Your task to perform on an android device: change text size in settings app Image 0: 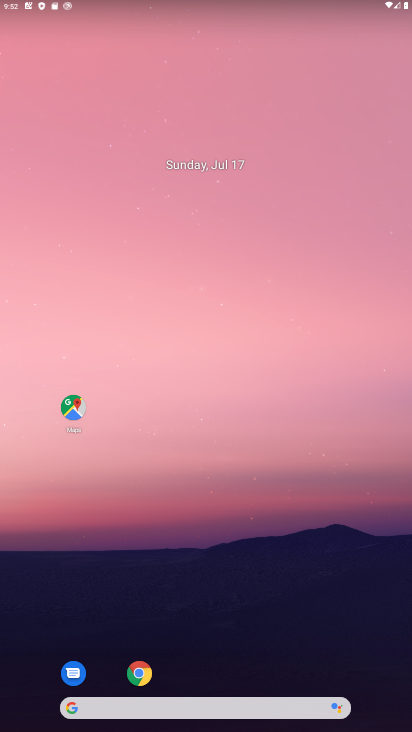
Step 0: drag from (220, 655) to (217, 136)
Your task to perform on an android device: change text size in settings app Image 1: 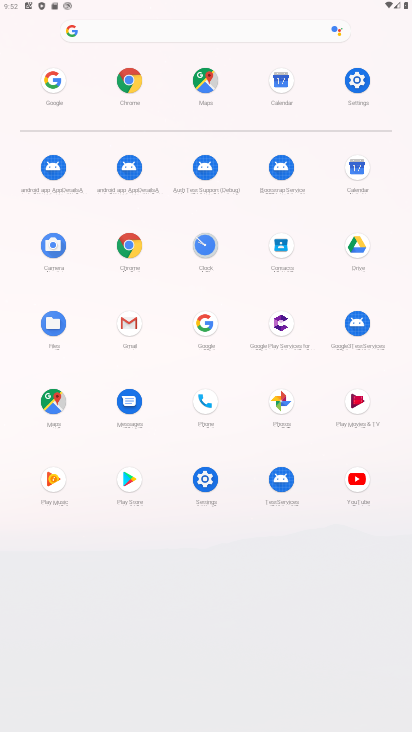
Step 1: click (357, 79)
Your task to perform on an android device: change text size in settings app Image 2: 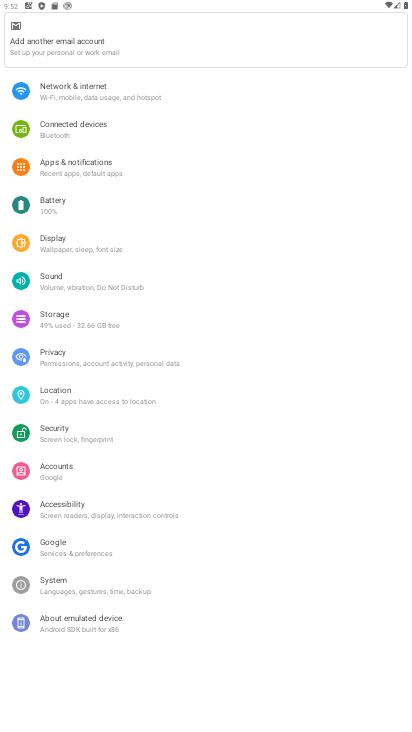
Step 2: click (116, 245)
Your task to perform on an android device: change text size in settings app Image 3: 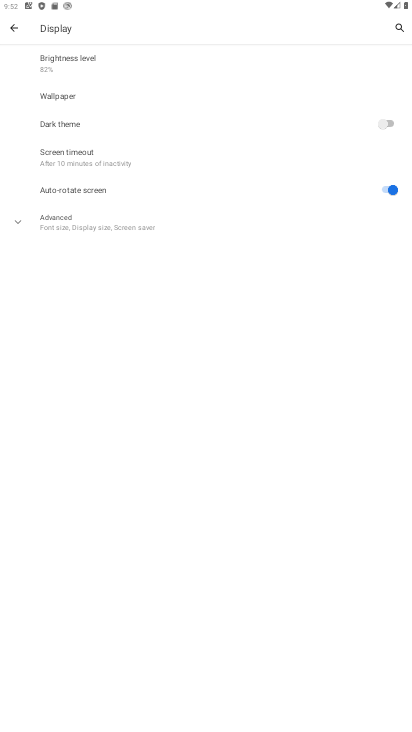
Step 3: click (81, 222)
Your task to perform on an android device: change text size in settings app Image 4: 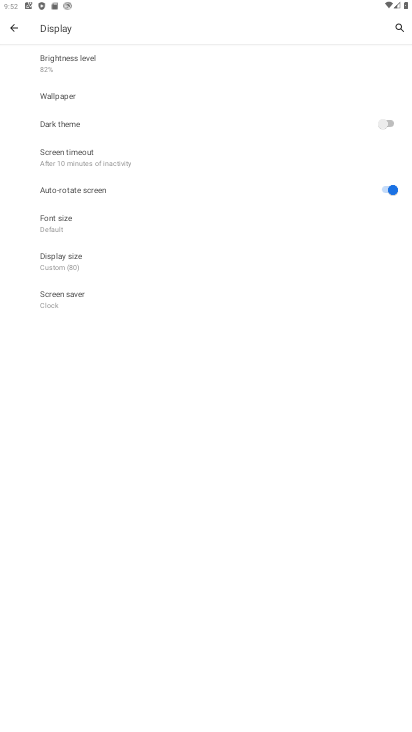
Step 4: click (70, 219)
Your task to perform on an android device: change text size in settings app Image 5: 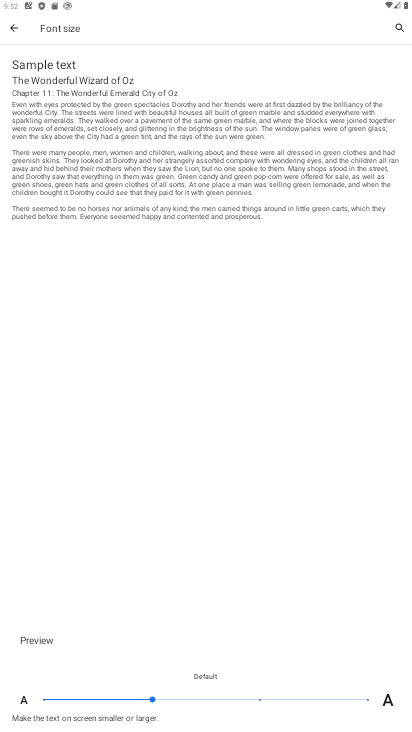
Step 5: task complete